Your task to perform on an android device: Open Android settings Image 0: 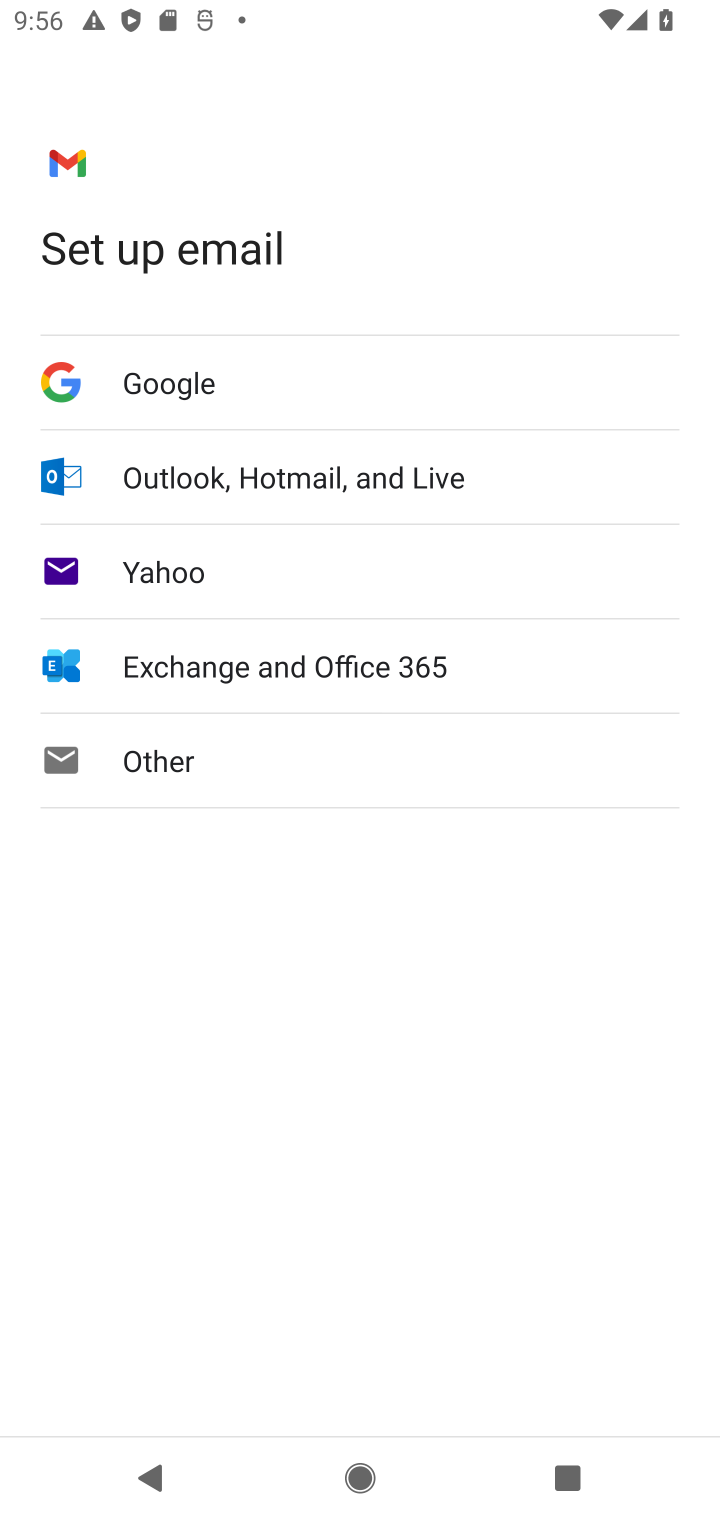
Step 0: press back button
Your task to perform on an android device: Open Android settings Image 1: 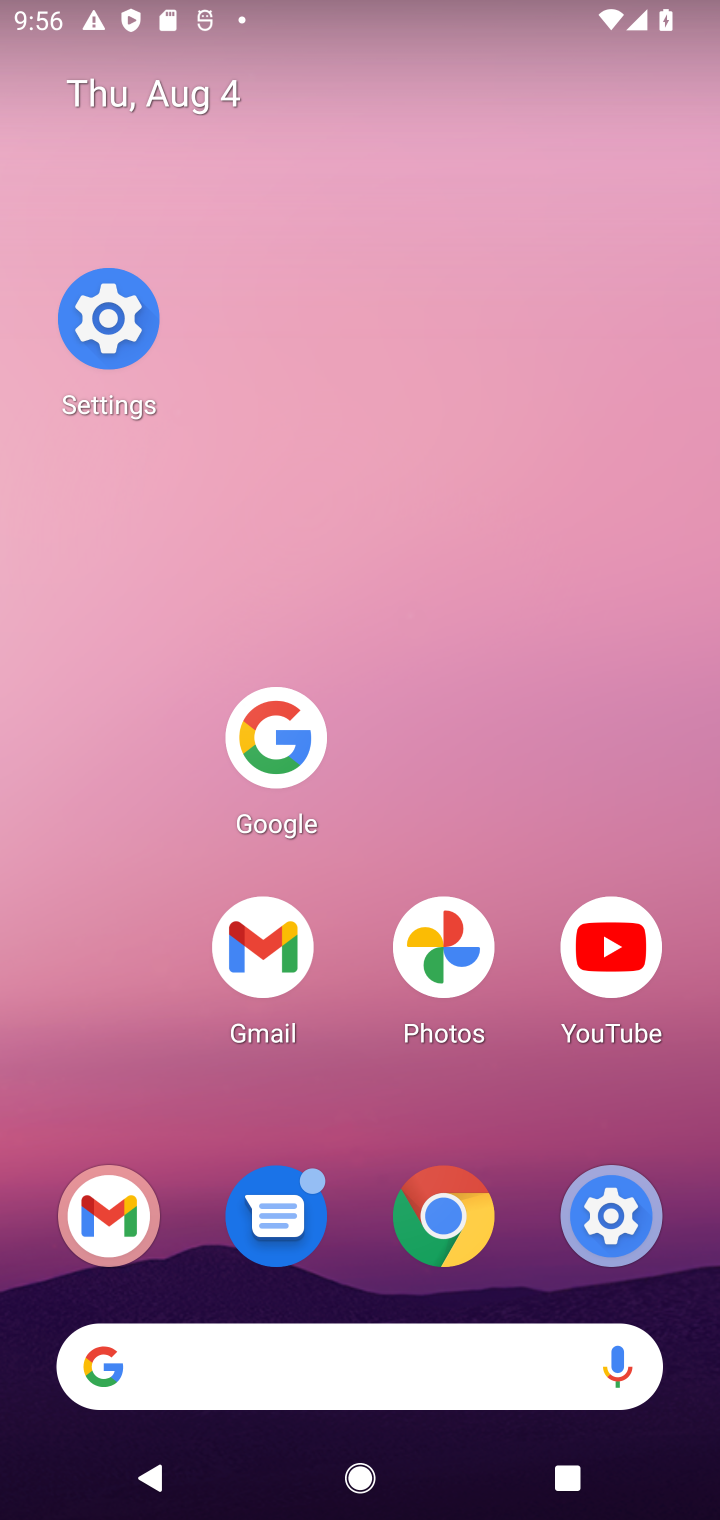
Step 1: click (90, 311)
Your task to perform on an android device: Open Android settings Image 2: 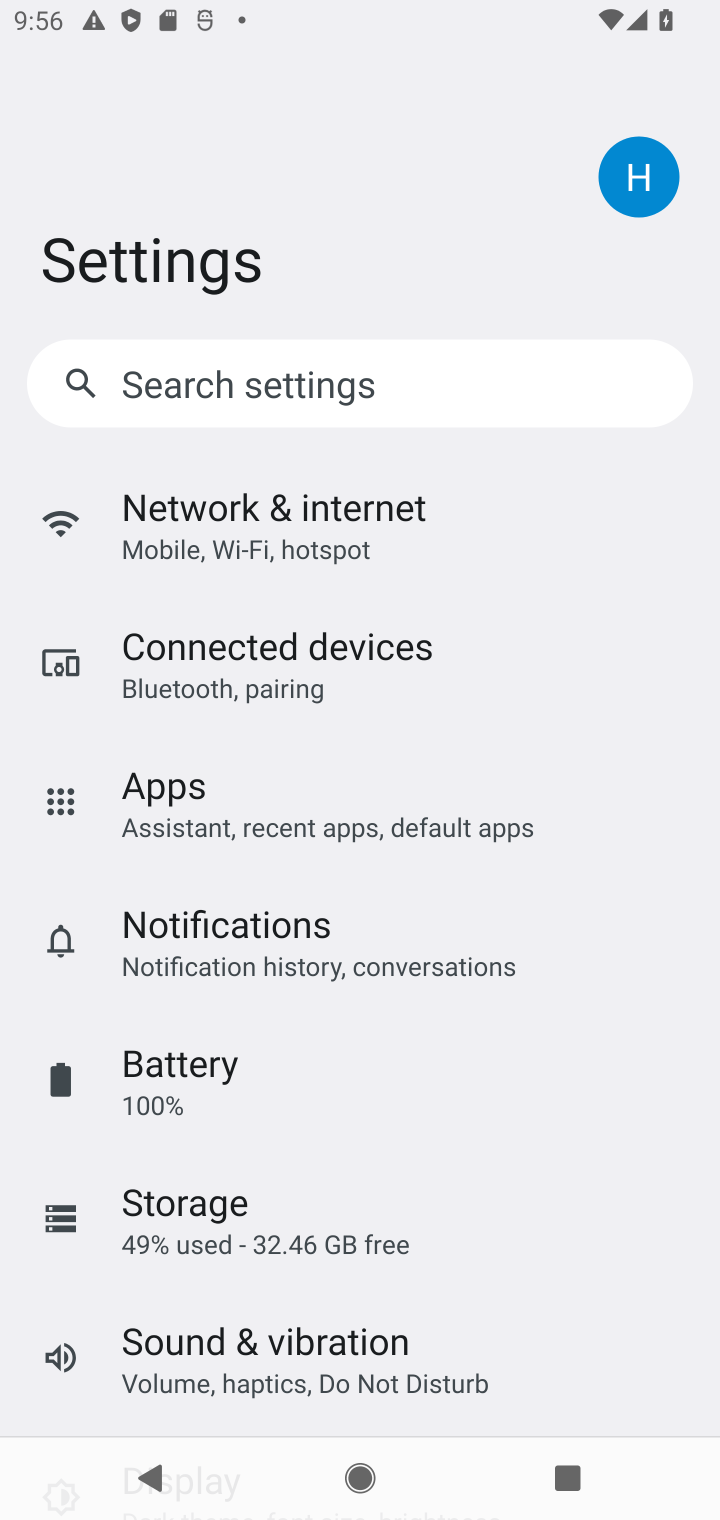
Step 2: task complete